Your task to perform on an android device: clear all cookies in the chrome app Image 0: 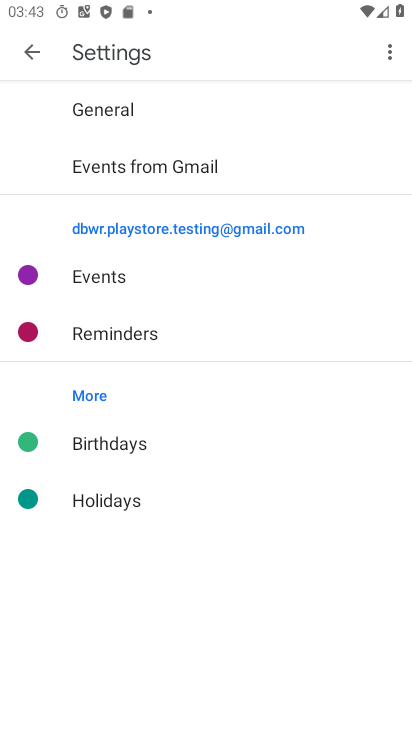
Step 0: press home button
Your task to perform on an android device: clear all cookies in the chrome app Image 1: 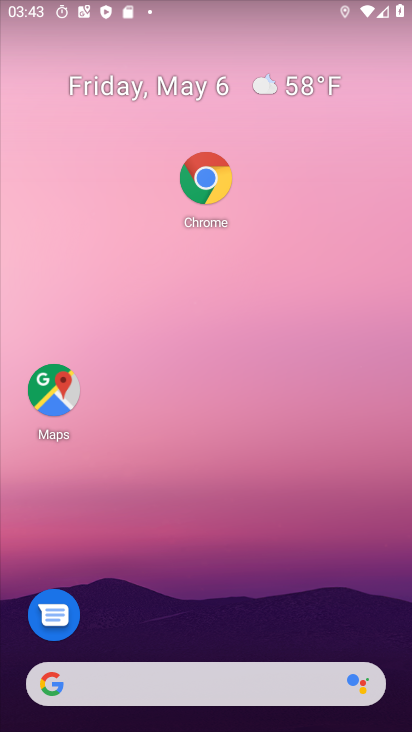
Step 1: drag from (375, 613) to (55, 9)
Your task to perform on an android device: clear all cookies in the chrome app Image 2: 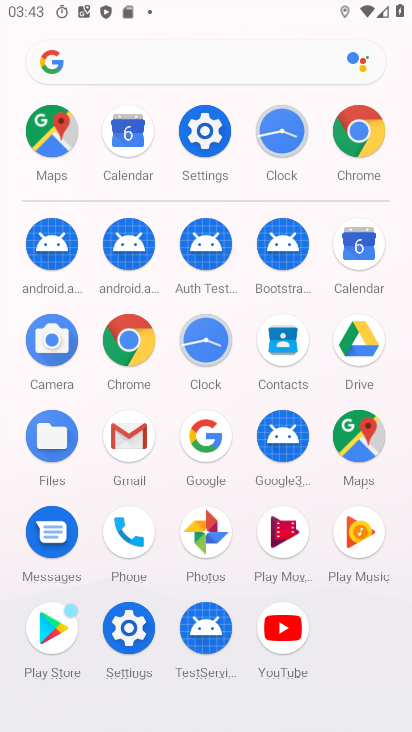
Step 2: click (361, 136)
Your task to perform on an android device: clear all cookies in the chrome app Image 3: 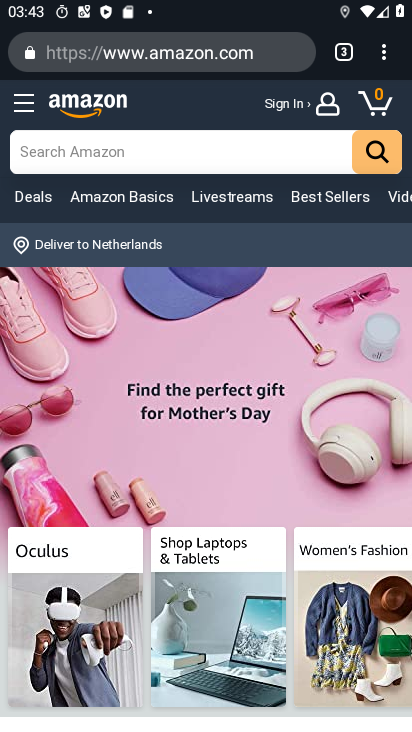
Step 3: drag from (379, 61) to (205, 638)
Your task to perform on an android device: clear all cookies in the chrome app Image 4: 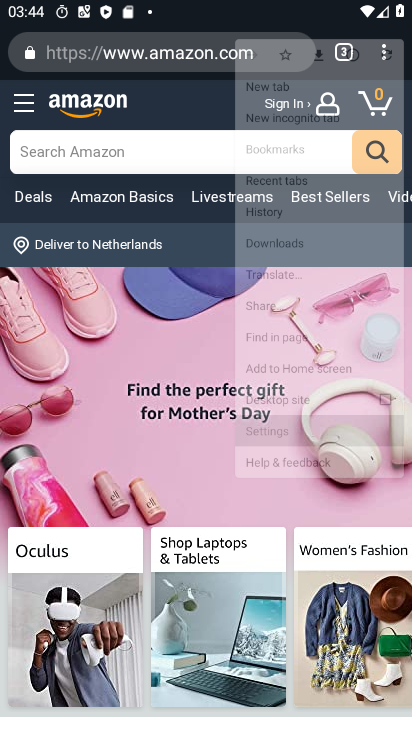
Step 4: click (198, 643)
Your task to perform on an android device: clear all cookies in the chrome app Image 5: 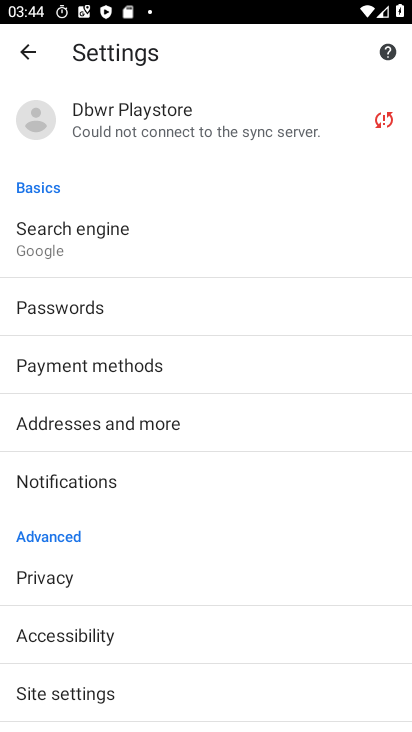
Step 5: drag from (134, 582) to (106, 240)
Your task to perform on an android device: clear all cookies in the chrome app Image 6: 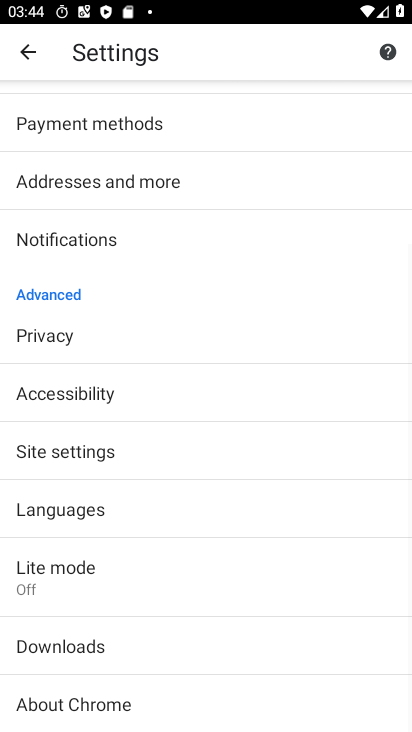
Step 6: click (56, 553)
Your task to perform on an android device: clear all cookies in the chrome app Image 7: 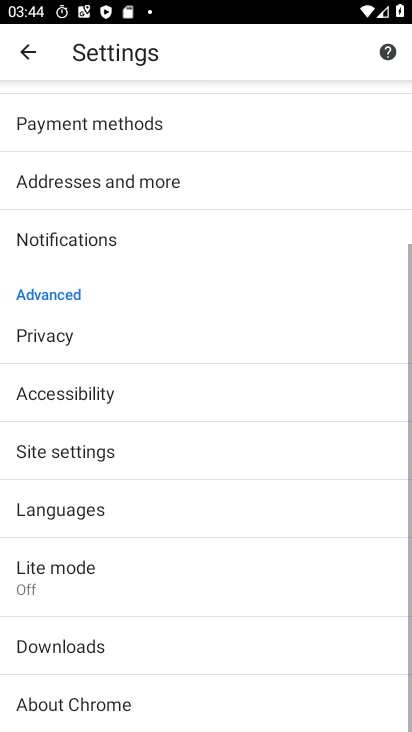
Step 7: click (65, 541)
Your task to perform on an android device: clear all cookies in the chrome app Image 8: 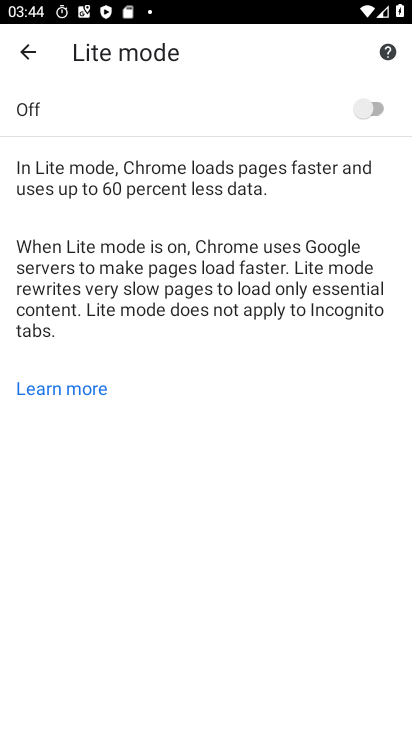
Step 8: click (32, 47)
Your task to perform on an android device: clear all cookies in the chrome app Image 9: 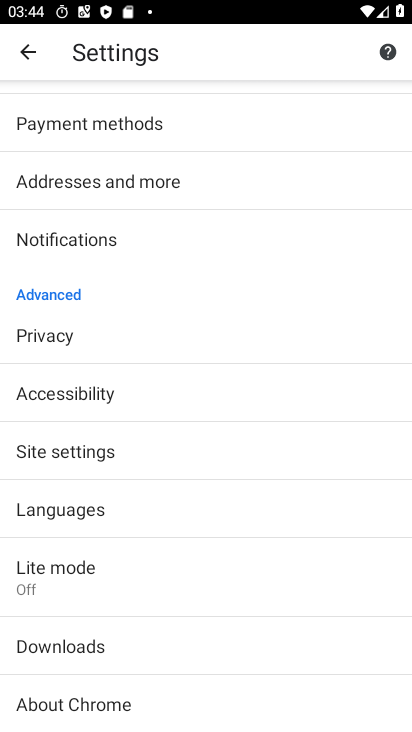
Step 9: click (53, 454)
Your task to perform on an android device: clear all cookies in the chrome app Image 10: 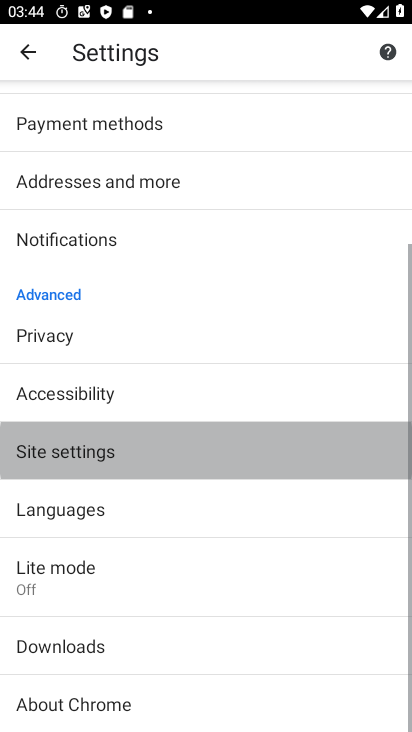
Step 10: click (53, 454)
Your task to perform on an android device: clear all cookies in the chrome app Image 11: 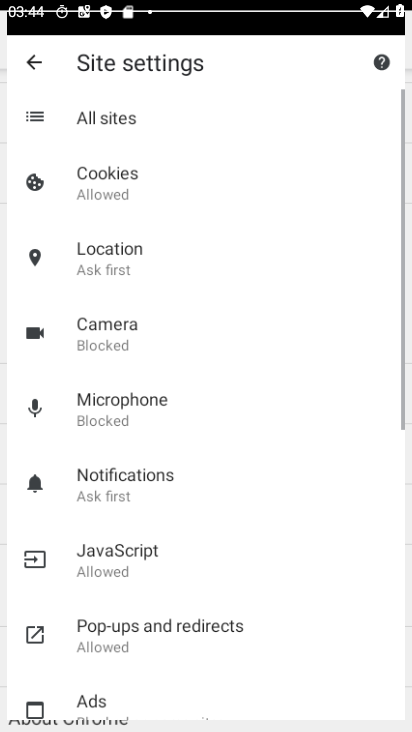
Step 11: click (53, 454)
Your task to perform on an android device: clear all cookies in the chrome app Image 12: 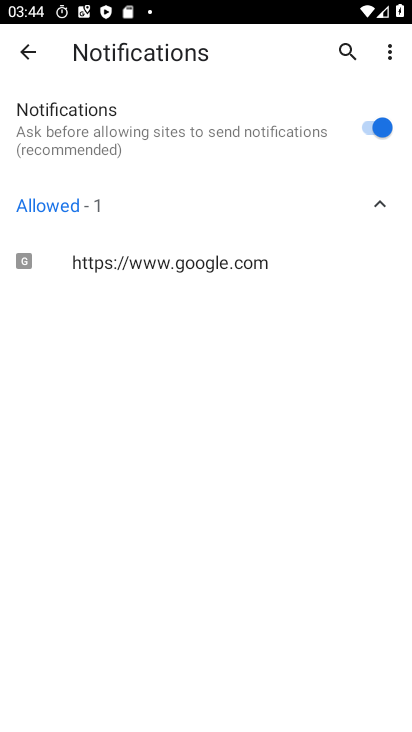
Step 12: click (26, 50)
Your task to perform on an android device: clear all cookies in the chrome app Image 13: 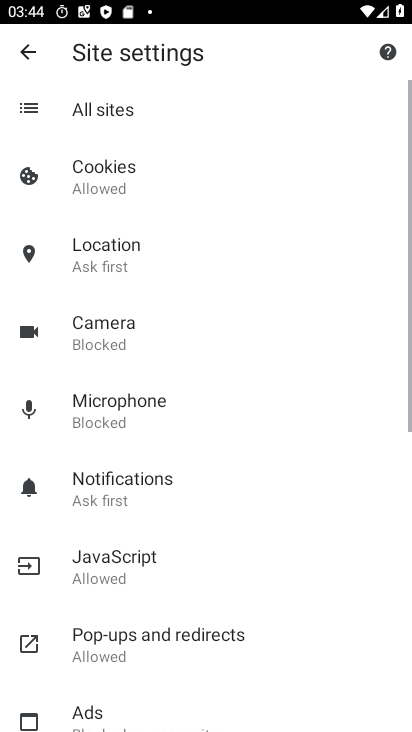
Step 13: click (105, 109)
Your task to perform on an android device: clear all cookies in the chrome app Image 14: 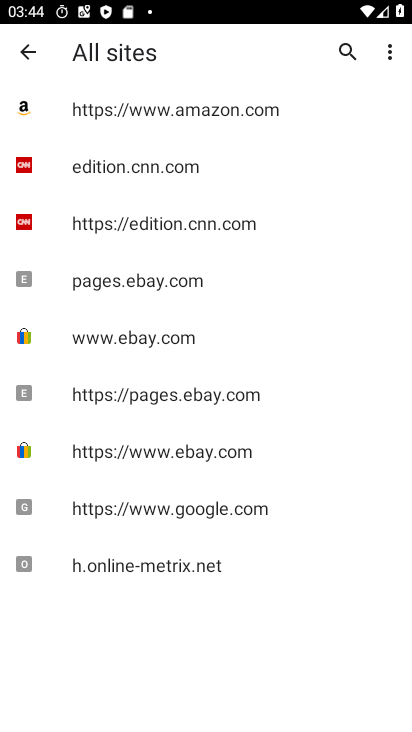
Step 14: click (19, 54)
Your task to perform on an android device: clear all cookies in the chrome app Image 15: 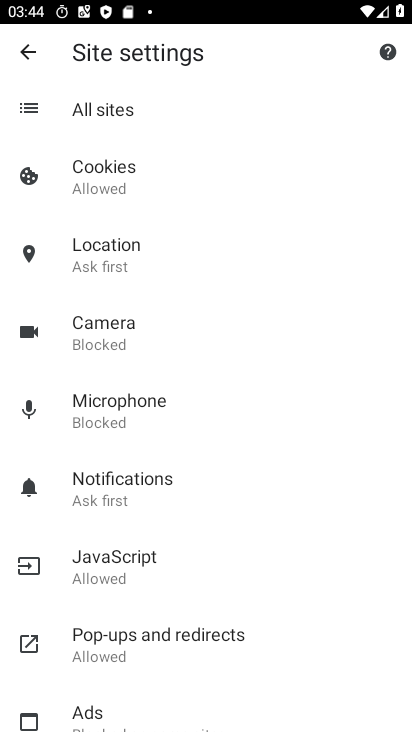
Step 15: click (109, 167)
Your task to perform on an android device: clear all cookies in the chrome app Image 16: 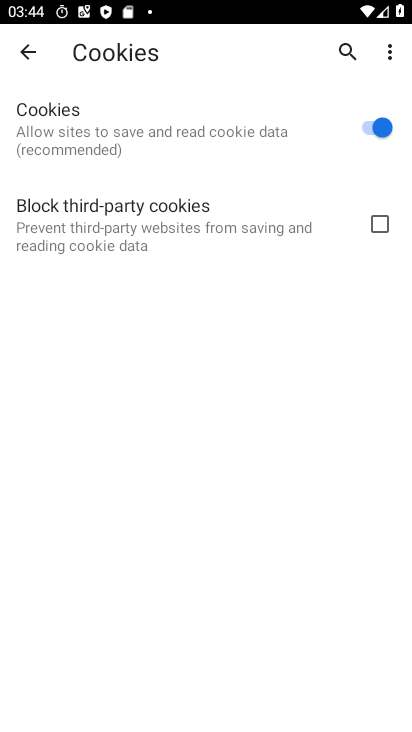
Step 16: task complete